Your task to perform on an android device: Go to Wikipedia Image 0: 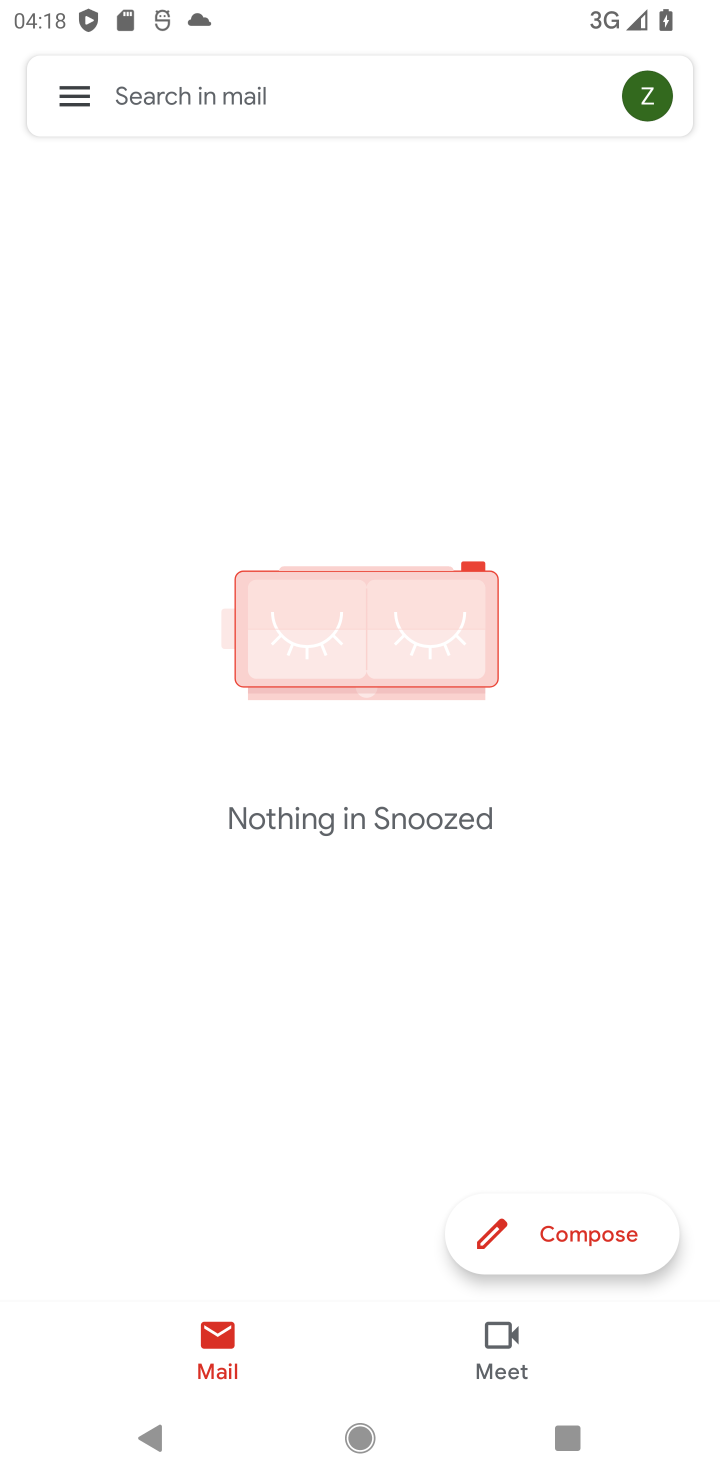
Step 0: task complete